Your task to perform on an android device: toggle priority inbox in the gmail app Image 0: 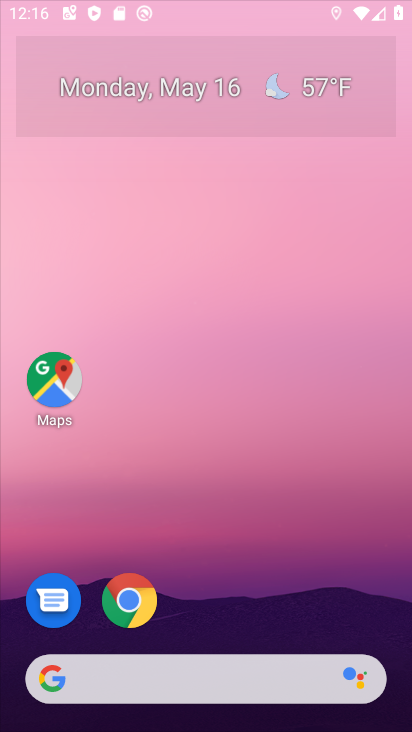
Step 0: drag from (230, 587) to (298, 49)
Your task to perform on an android device: toggle priority inbox in the gmail app Image 1: 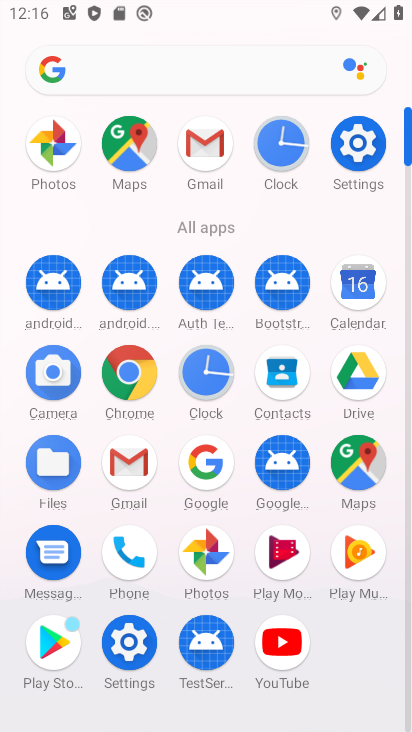
Step 1: click (199, 142)
Your task to perform on an android device: toggle priority inbox in the gmail app Image 2: 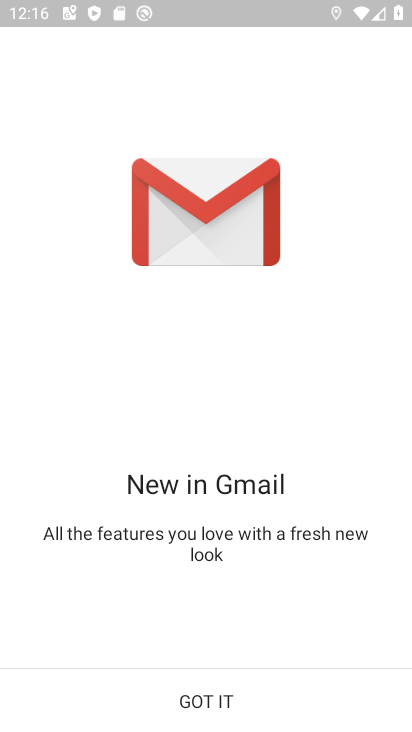
Step 2: click (215, 682)
Your task to perform on an android device: toggle priority inbox in the gmail app Image 3: 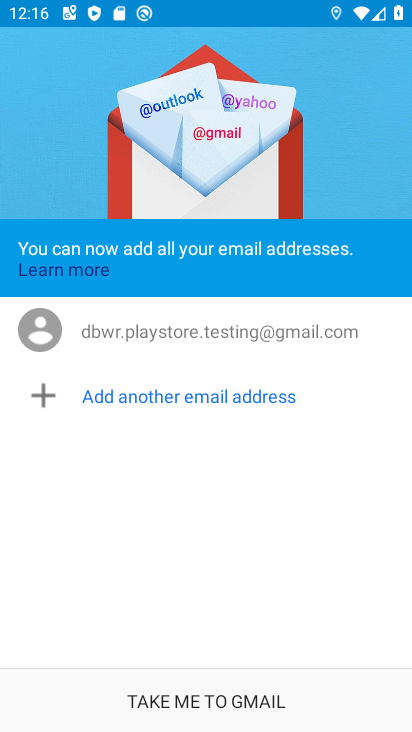
Step 3: click (202, 704)
Your task to perform on an android device: toggle priority inbox in the gmail app Image 4: 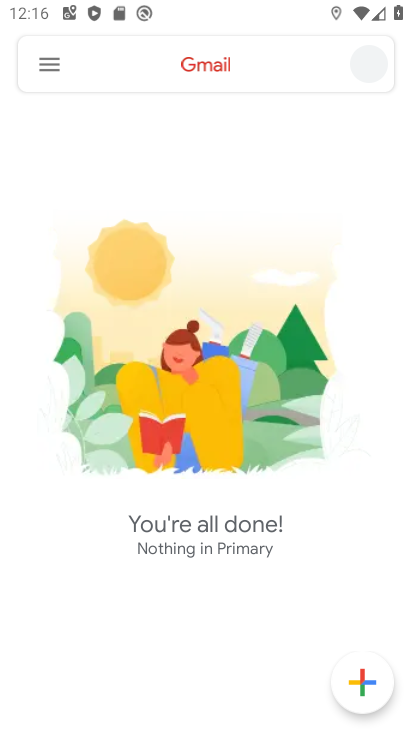
Step 4: click (41, 60)
Your task to perform on an android device: toggle priority inbox in the gmail app Image 5: 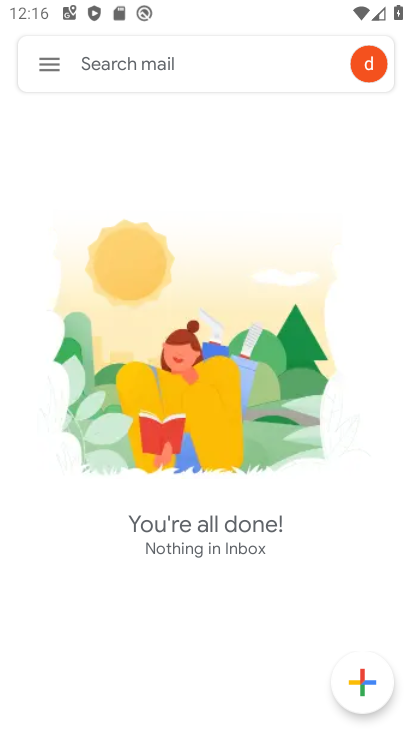
Step 5: click (52, 68)
Your task to perform on an android device: toggle priority inbox in the gmail app Image 6: 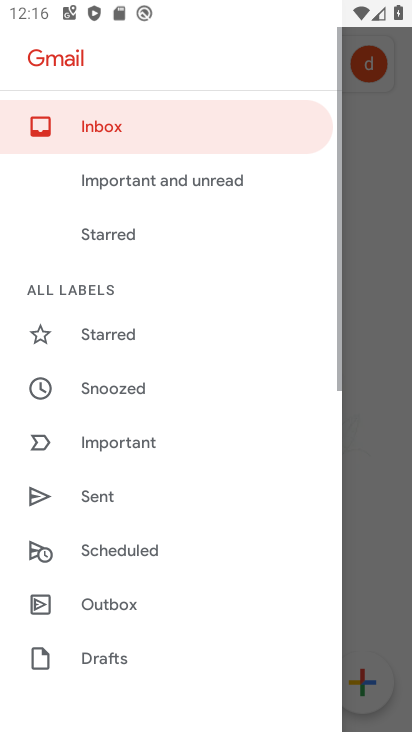
Step 6: drag from (105, 641) to (189, 83)
Your task to perform on an android device: toggle priority inbox in the gmail app Image 7: 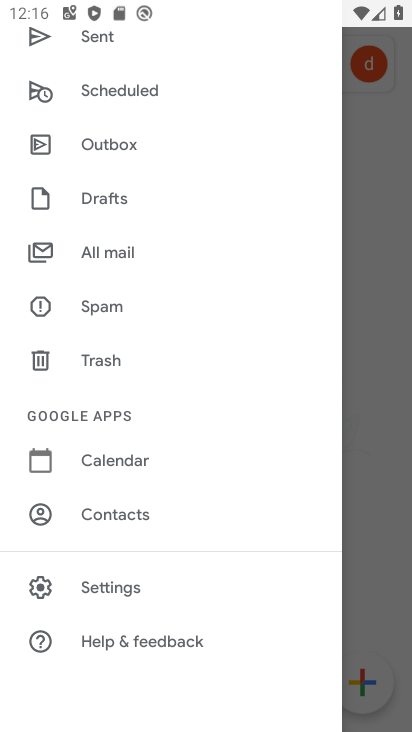
Step 7: click (114, 583)
Your task to perform on an android device: toggle priority inbox in the gmail app Image 8: 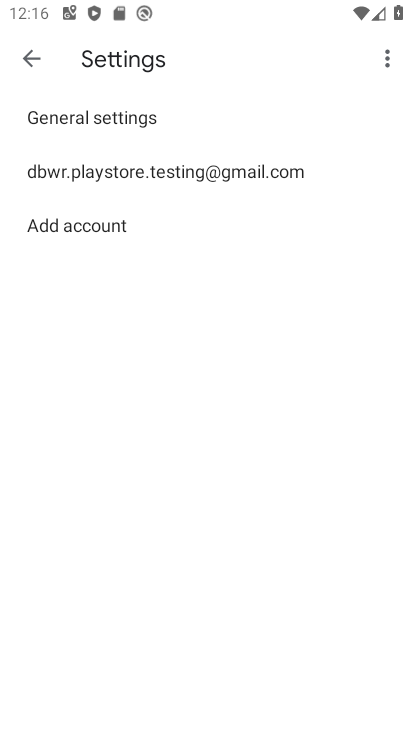
Step 8: click (107, 172)
Your task to perform on an android device: toggle priority inbox in the gmail app Image 9: 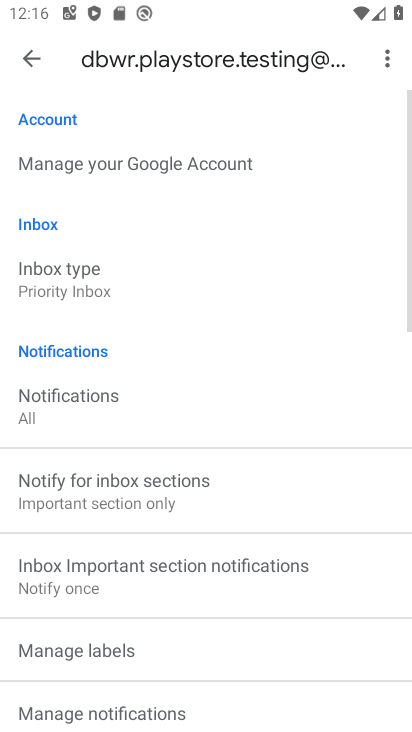
Step 9: click (45, 283)
Your task to perform on an android device: toggle priority inbox in the gmail app Image 10: 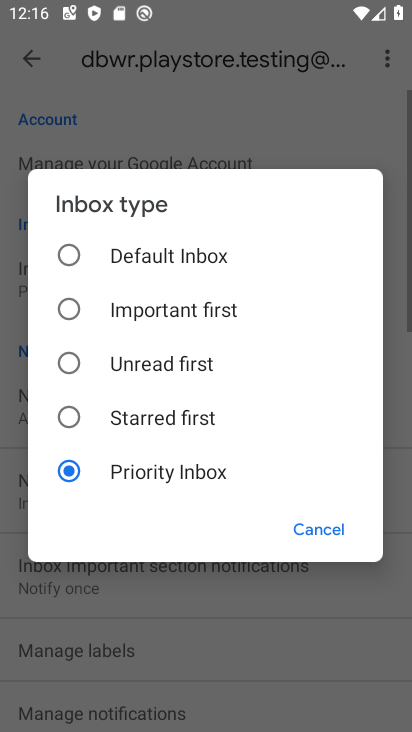
Step 10: click (69, 467)
Your task to perform on an android device: toggle priority inbox in the gmail app Image 11: 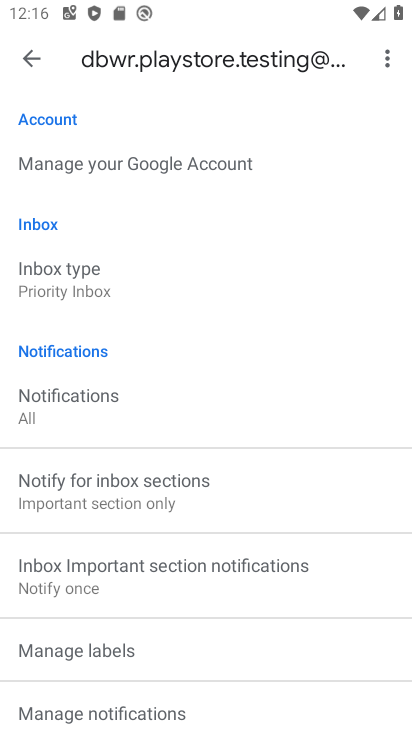
Step 11: task complete